Your task to perform on an android device: empty trash in google photos Image 0: 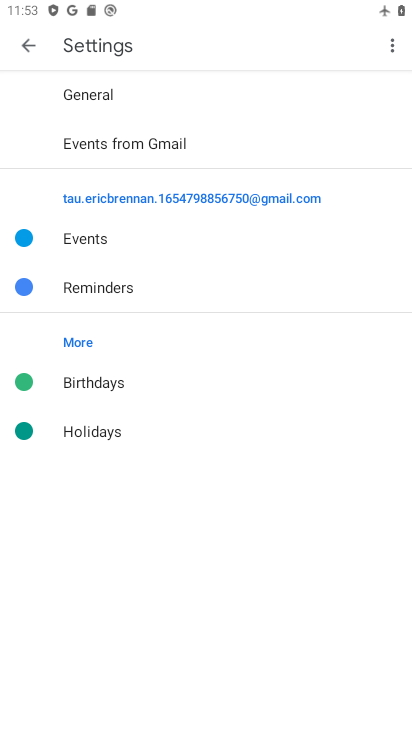
Step 0: press home button
Your task to perform on an android device: empty trash in google photos Image 1: 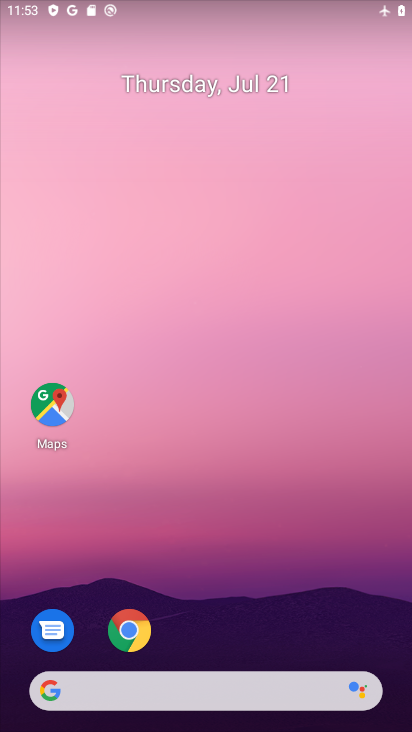
Step 1: drag from (213, 652) to (184, 92)
Your task to perform on an android device: empty trash in google photos Image 2: 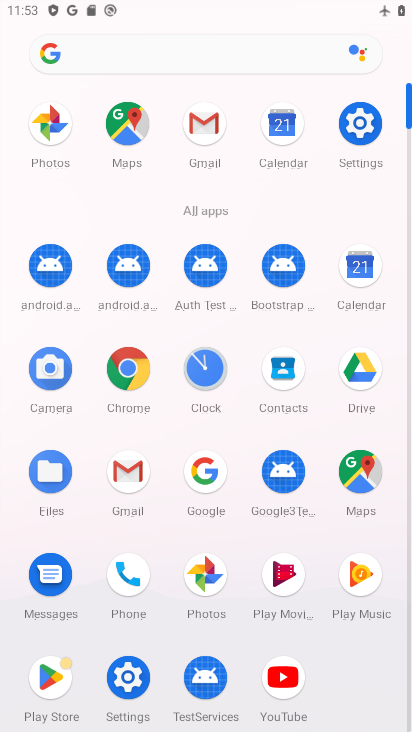
Step 2: click (207, 577)
Your task to perform on an android device: empty trash in google photos Image 3: 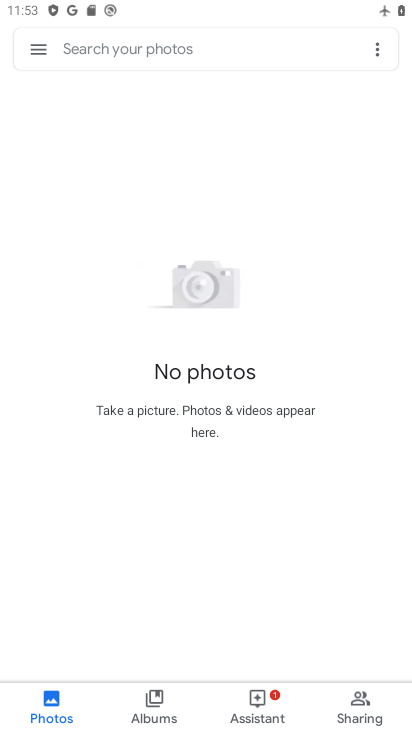
Step 3: click (34, 41)
Your task to perform on an android device: empty trash in google photos Image 4: 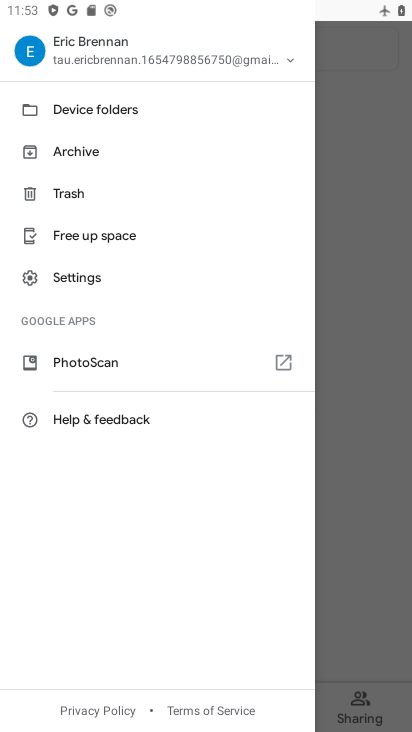
Step 4: click (78, 197)
Your task to perform on an android device: empty trash in google photos Image 5: 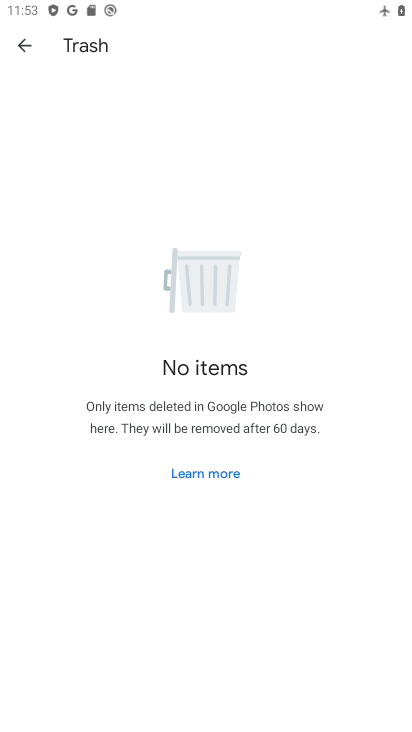
Step 5: task complete